Your task to perform on an android device: toggle data saver in the chrome app Image 0: 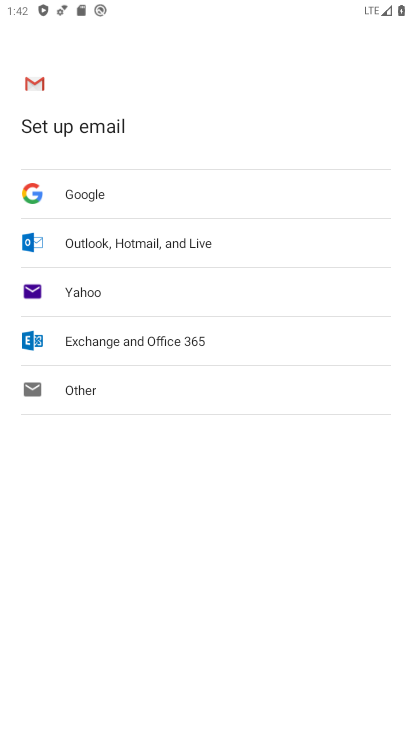
Step 0: press home button
Your task to perform on an android device: toggle data saver in the chrome app Image 1: 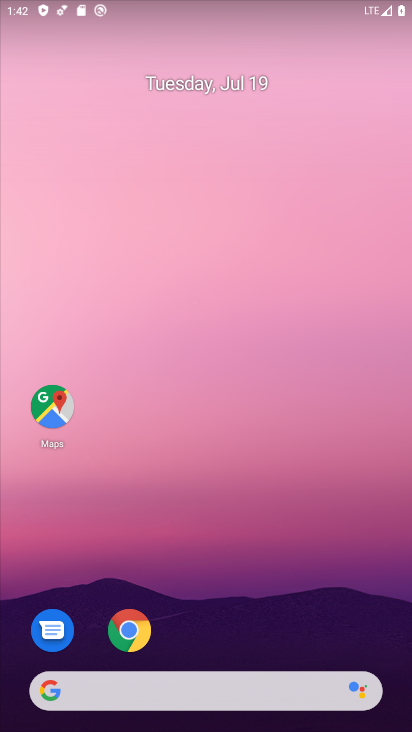
Step 1: click (125, 622)
Your task to perform on an android device: toggle data saver in the chrome app Image 2: 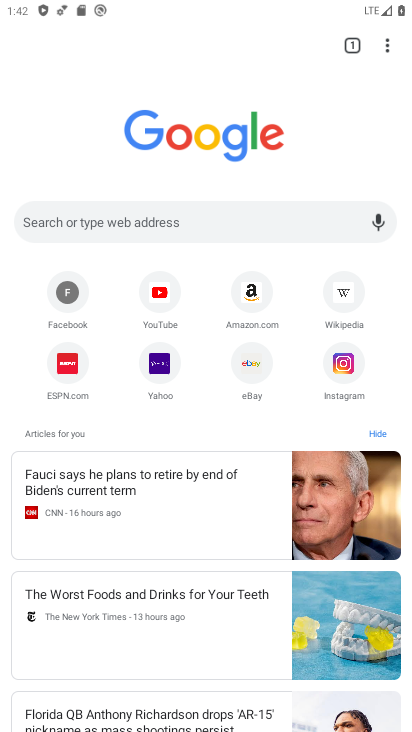
Step 2: click (382, 38)
Your task to perform on an android device: toggle data saver in the chrome app Image 3: 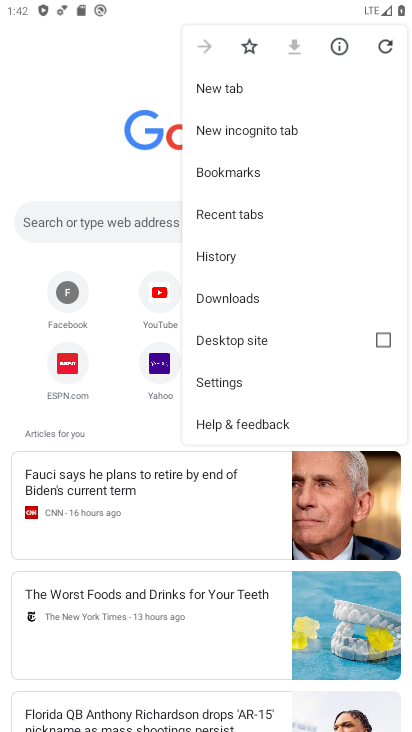
Step 3: click (254, 382)
Your task to perform on an android device: toggle data saver in the chrome app Image 4: 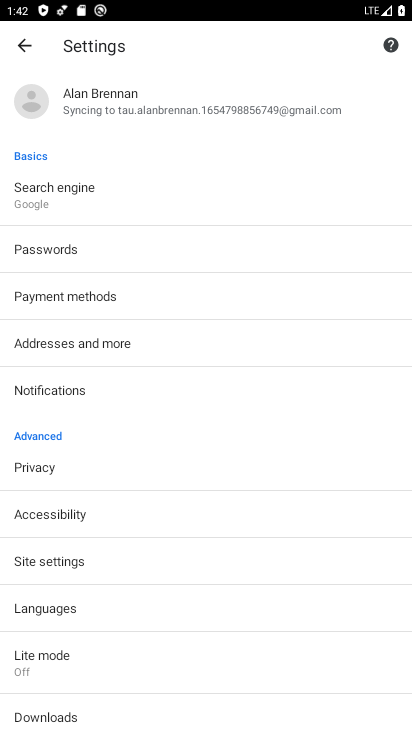
Step 4: click (80, 661)
Your task to perform on an android device: toggle data saver in the chrome app Image 5: 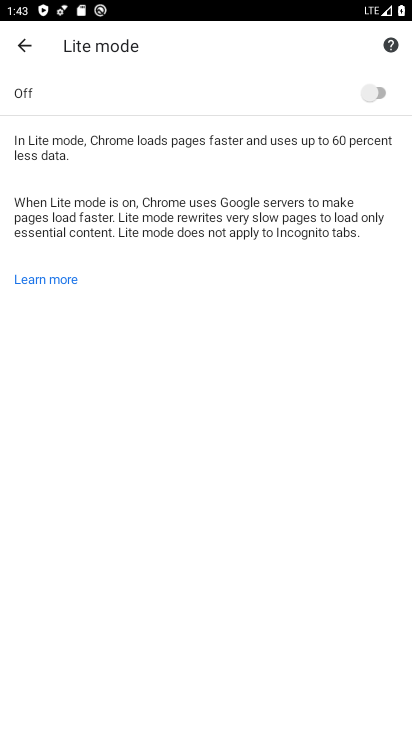
Step 5: click (380, 90)
Your task to perform on an android device: toggle data saver in the chrome app Image 6: 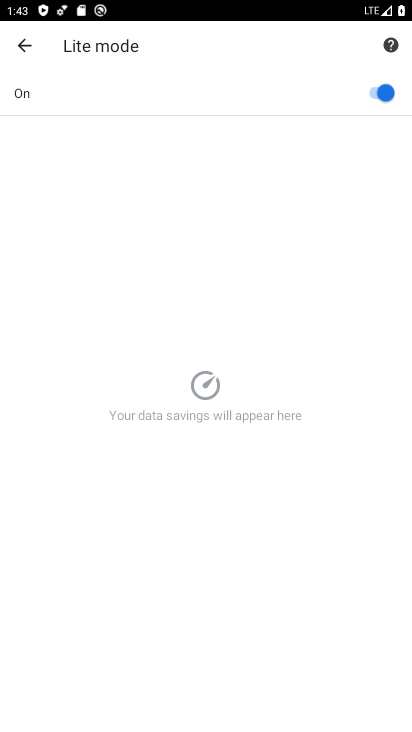
Step 6: task complete